Your task to perform on an android device: turn on javascript in the chrome app Image 0: 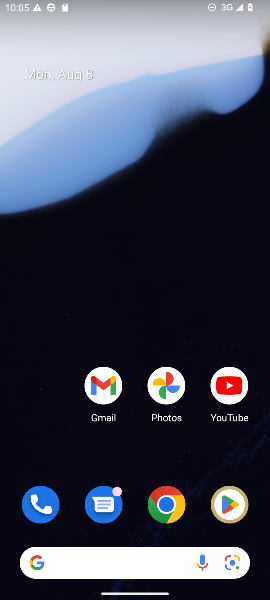
Step 0: click (168, 504)
Your task to perform on an android device: turn on javascript in the chrome app Image 1: 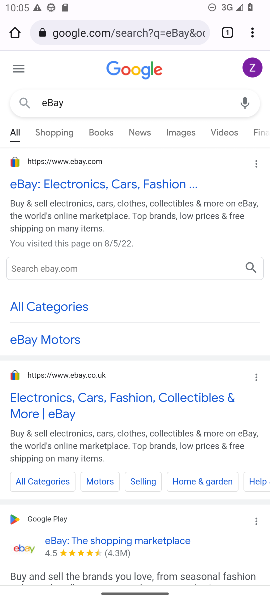
Step 1: click (252, 27)
Your task to perform on an android device: turn on javascript in the chrome app Image 2: 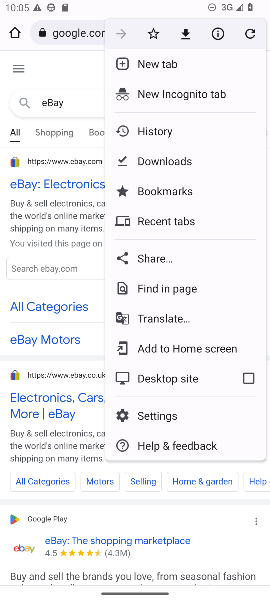
Step 2: click (171, 415)
Your task to perform on an android device: turn on javascript in the chrome app Image 3: 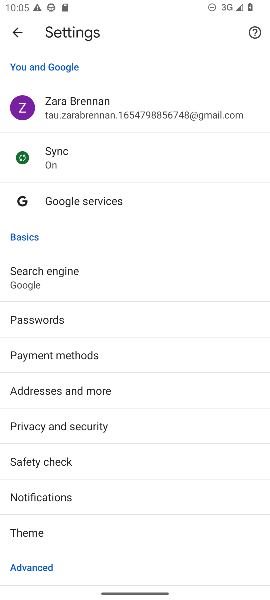
Step 3: drag from (93, 454) to (102, 231)
Your task to perform on an android device: turn on javascript in the chrome app Image 4: 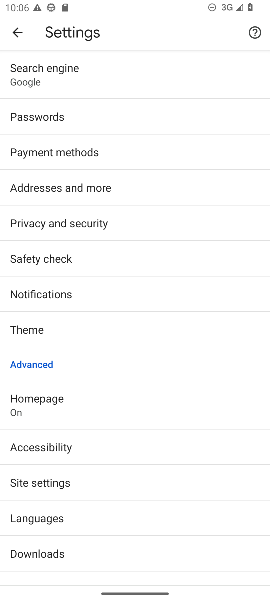
Step 4: drag from (100, 482) to (116, 339)
Your task to perform on an android device: turn on javascript in the chrome app Image 5: 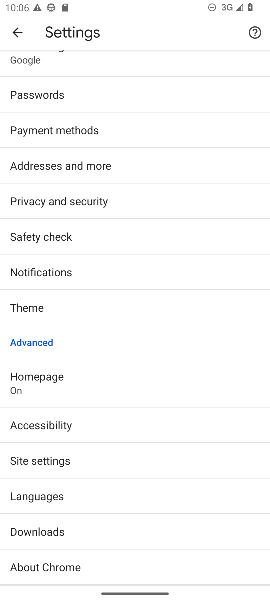
Step 5: click (63, 466)
Your task to perform on an android device: turn on javascript in the chrome app Image 6: 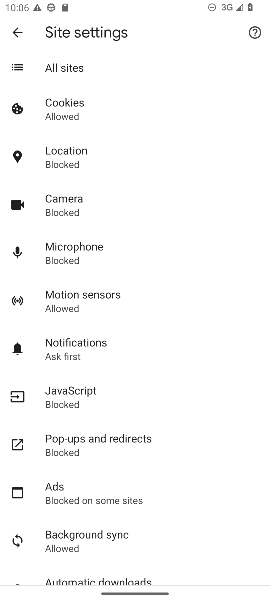
Step 6: click (85, 406)
Your task to perform on an android device: turn on javascript in the chrome app Image 7: 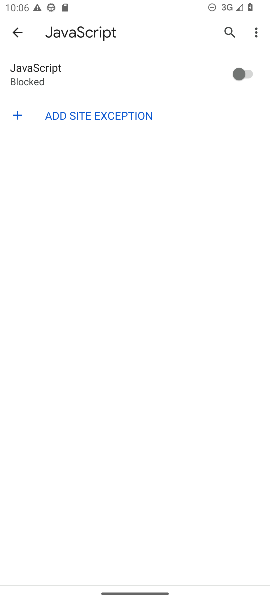
Step 7: click (255, 74)
Your task to perform on an android device: turn on javascript in the chrome app Image 8: 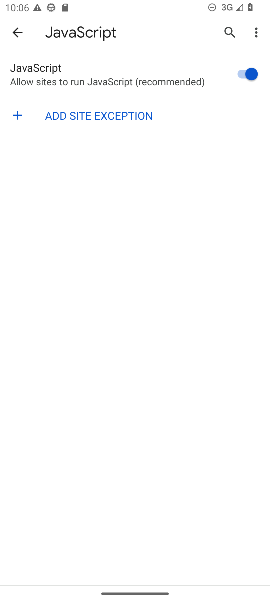
Step 8: task complete